Your task to perform on an android device: turn on wifi Image 0: 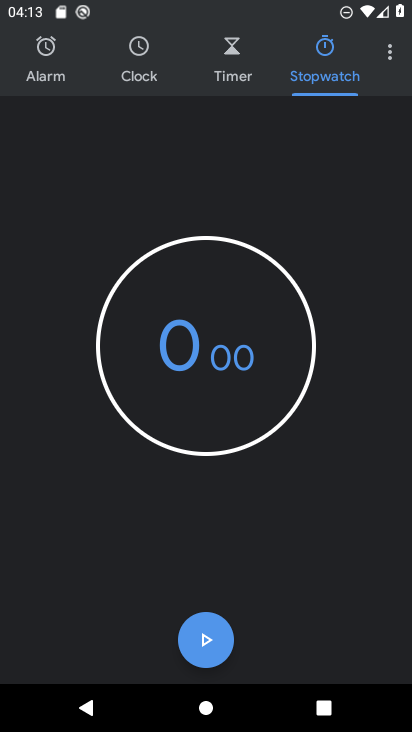
Step 0: drag from (225, 12) to (175, 506)
Your task to perform on an android device: turn on wifi Image 1: 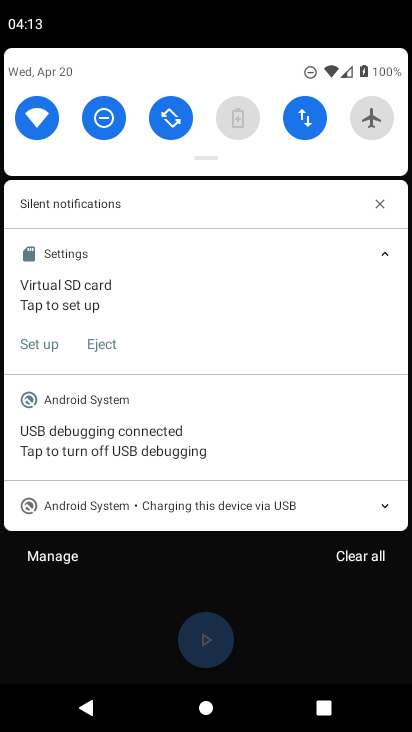
Step 1: task complete